Your task to perform on an android device: Go to Amazon Image 0: 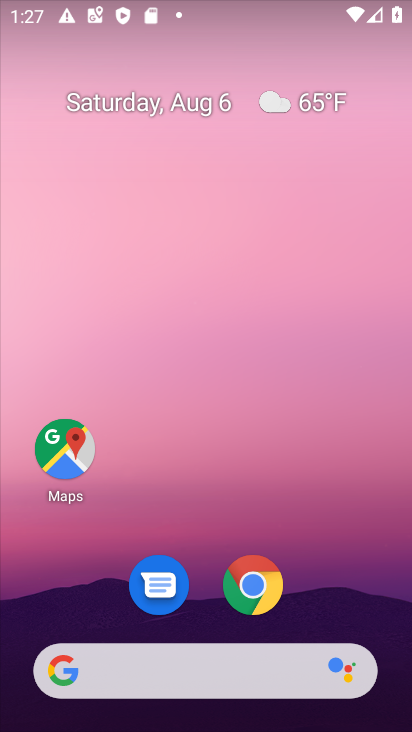
Step 0: click (250, 573)
Your task to perform on an android device: Go to Amazon Image 1: 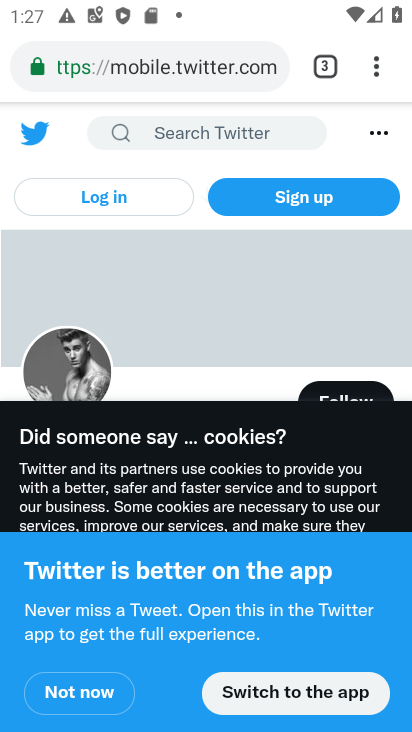
Step 1: click (373, 63)
Your task to perform on an android device: Go to Amazon Image 2: 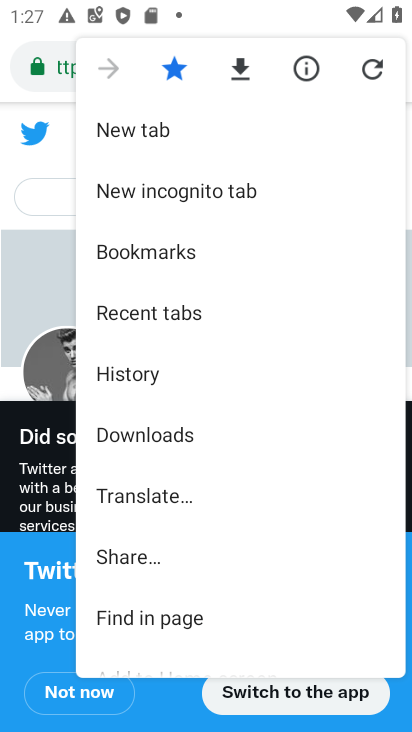
Step 2: click (205, 131)
Your task to perform on an android device: Go to Amazon Image 3: 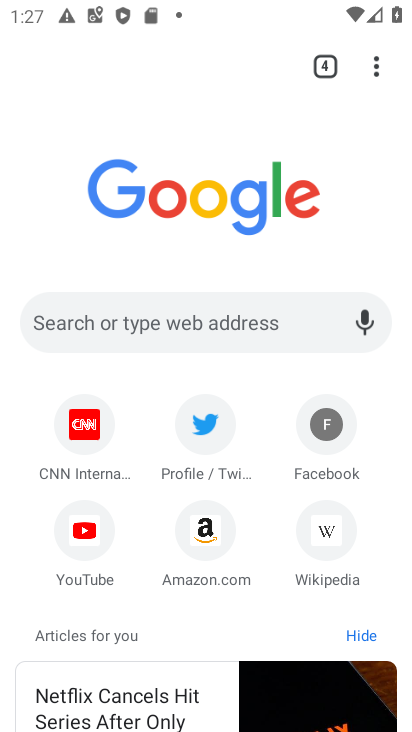
Step 3: click (206, 528)
Your task to perform on an android device: Go to Amazon Image 4: 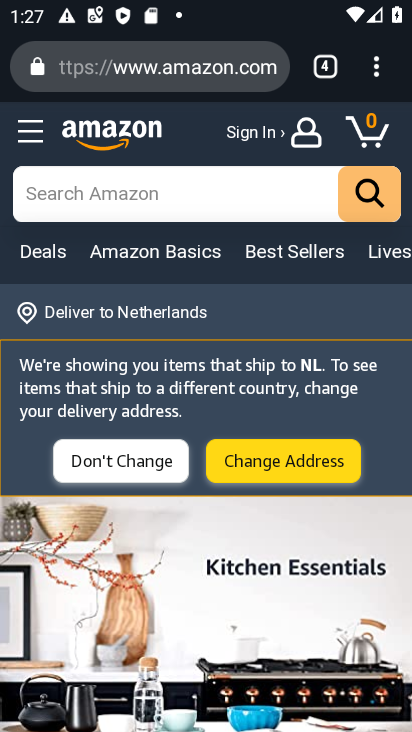
Step 4: task complete